Your task to perform on an android device: open chrome and create a bookmark for the current page Image 0: 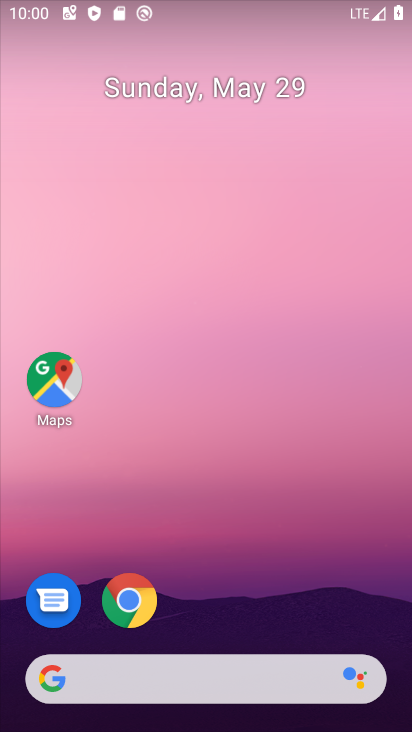
Step 0: click (132, 613)
Your task to perform on an android device: open chrome and create a bookmark for the current page Image 1: 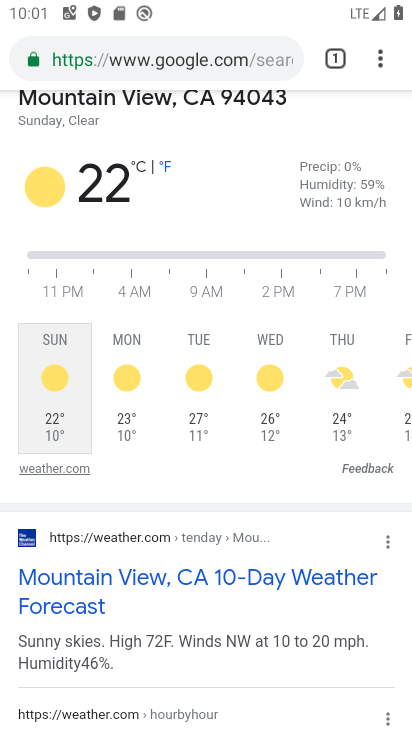
Step 1: drag from (383, 36) to (228, 196)
Your task to perform on an android device: open chrome and create a bookmark for the current page Image 2: 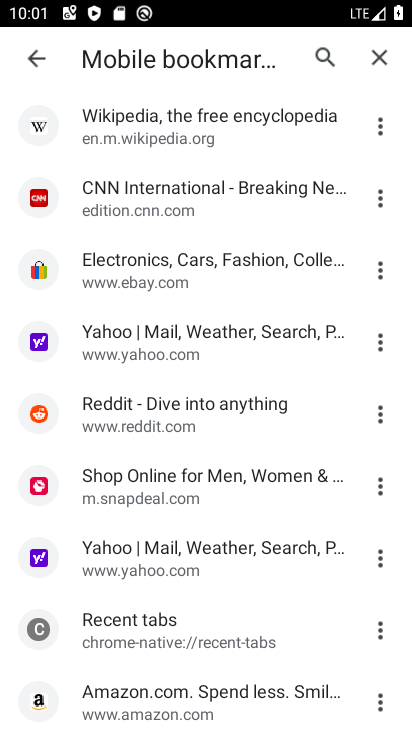
Step 2: click (51, 72)
Your task to perform on an android device: open chrome and create a bookmark for the current page Image 3: 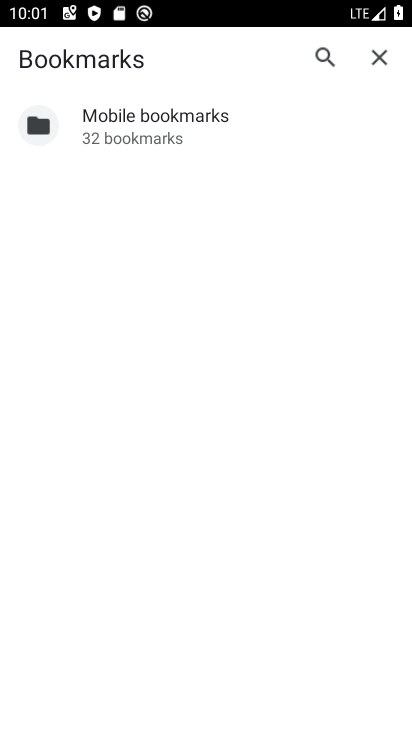
Step 3: click (368, 53)
Your task to perform on an android device: open chrome and create a bookmark for the current page Image 4: 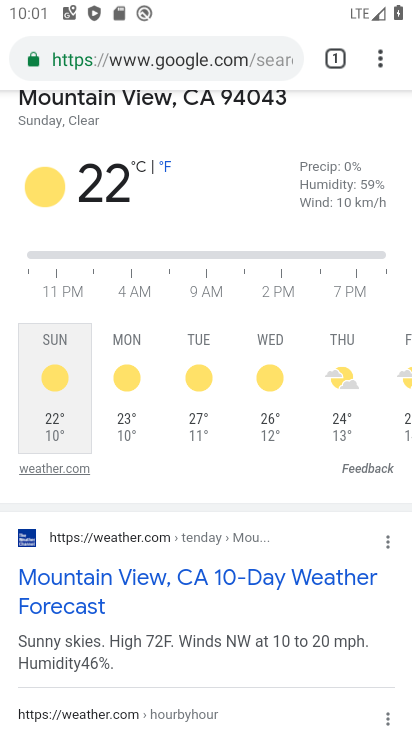
Step 4: drag from (384, 59) to (331, 12)
Your task to perform on an android device: open chrome and create a bookmark for the current page Image 5: 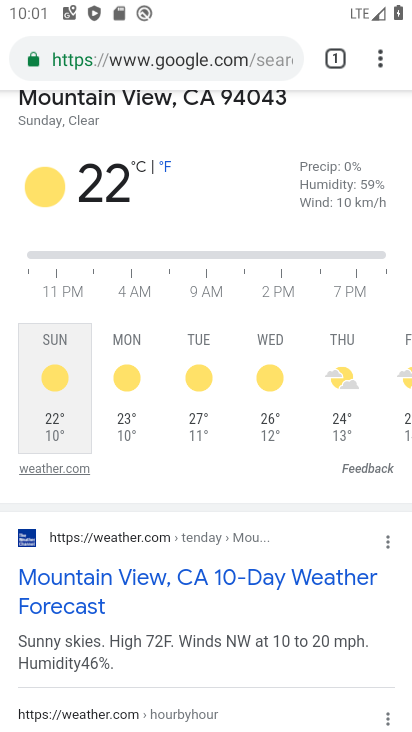
Step 5: click (338, 58)
Your task to perform on an android device: open chrome and create a bookmark for the current page Image 6: 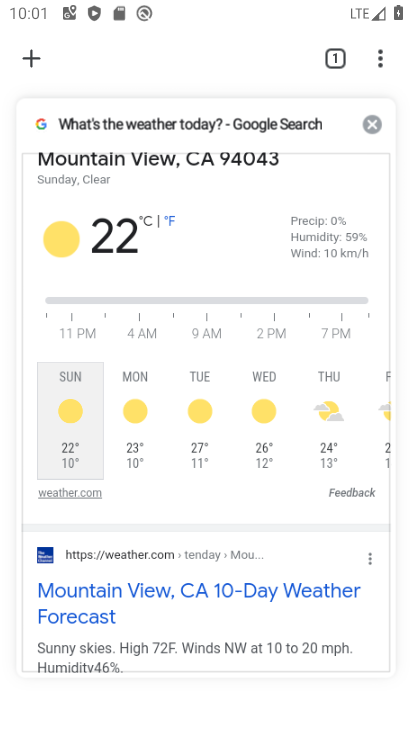
Step 6: click (330, 60)
Your task to perform on an android device: open chrome and create a bookmark for the current page Image 7: 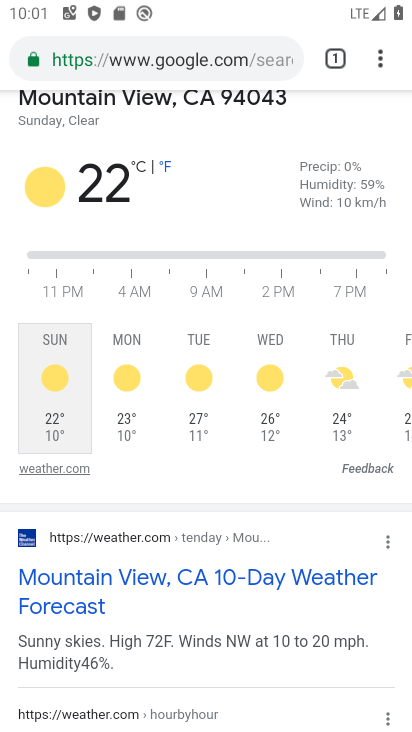
Step 7: click (330, 60)
Your task to perform on an android device: open chrome and create a bookmark for the current page Image 8: 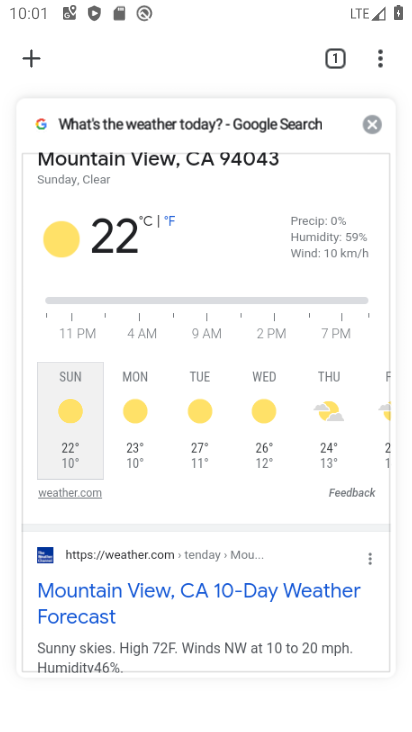
Step 8: click (27, 54)
Your task to perform on an android device: open chrome and create a bookmark for the current page Image 9: 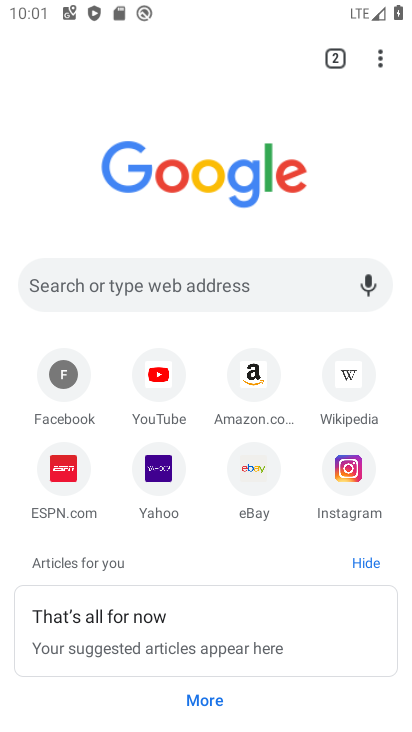
Step 9: click (257, 363)
Your task to perform on an android device: open chrome and create a bookmark for the current page Image 10: 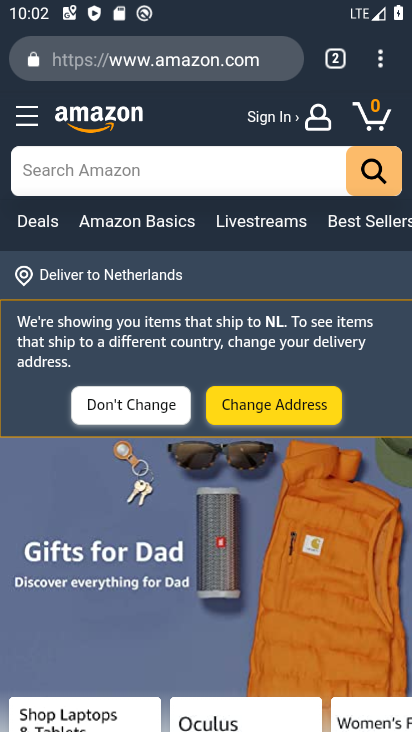
Step 10: drag from (381, 58) to (164, 2)
Your task to perform on an android device: open chrome and create a bookmark for the current page Image 11: 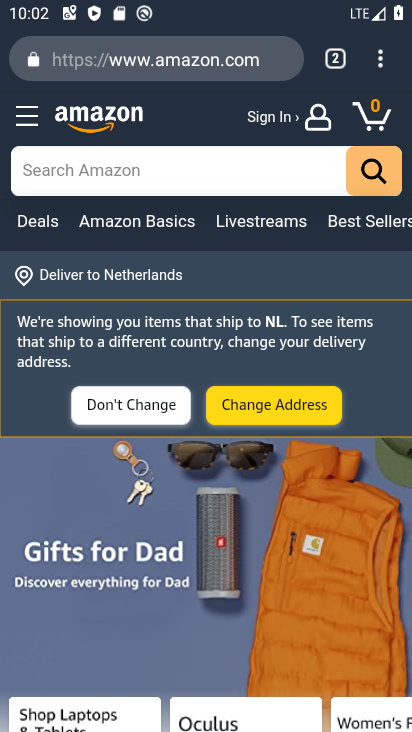
Step 11: drag from (375, 69) to (145, 110)
Your task to perform on an android device: open chrome and create a bookmark for the current page Image 12: 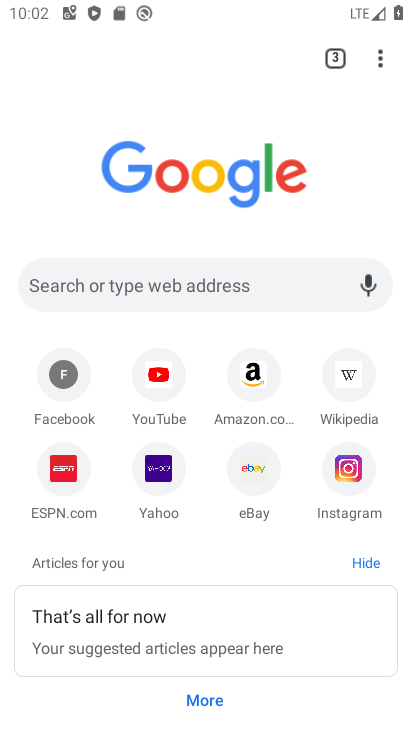
Step 12: click (344, 472)
Your task to perform on an android device: open chrome and create a bookmark for the current page Image 13: 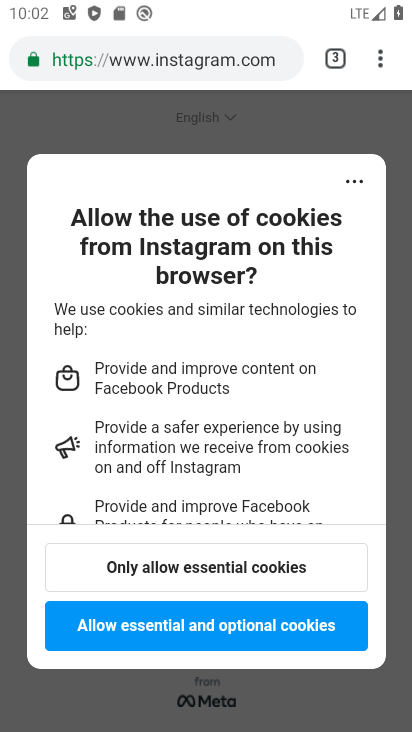
Step 13: task complete